Your task to perform on an android device: Open my contact list Image 0: 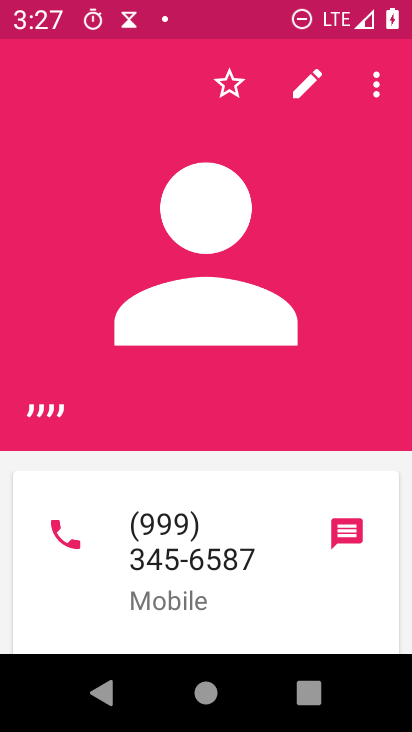
Step 0: press home button
Your task to perform on an android device: Open my contact list Image 1: 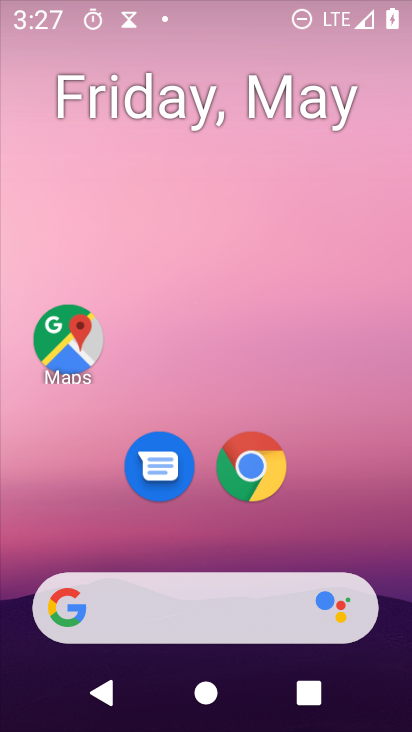
Step 1: drag from (376, 532) to (376, 29)
Your task to perform on an android device: Open my contact list Image 2: 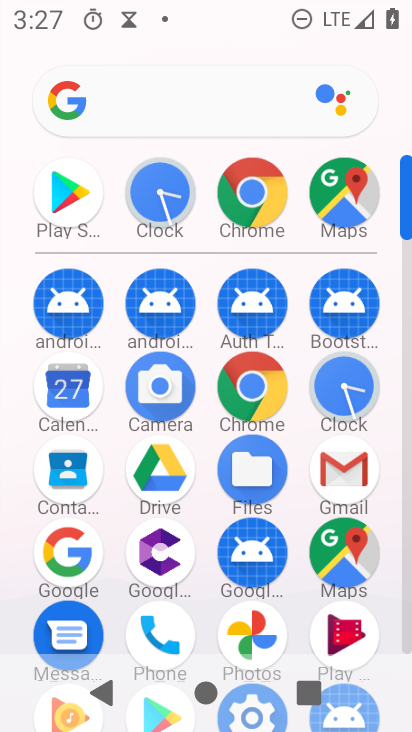
Step 2: drag from (394, 607) to (383, 371)
Your task to perform on an android device: Open my contact list Image 3: 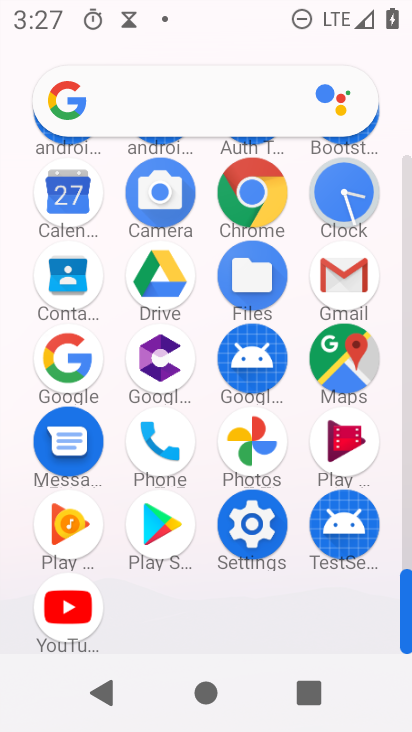
Step 3: click (174, 441)
Your task to perform on an android device: Open my contact list Image 4: 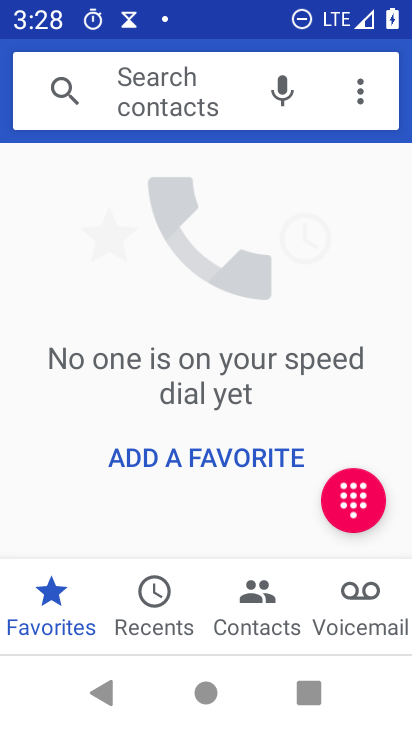
Step 4: click (283, 608)
Your task to perform on an android device: Open my contact list Image 5: 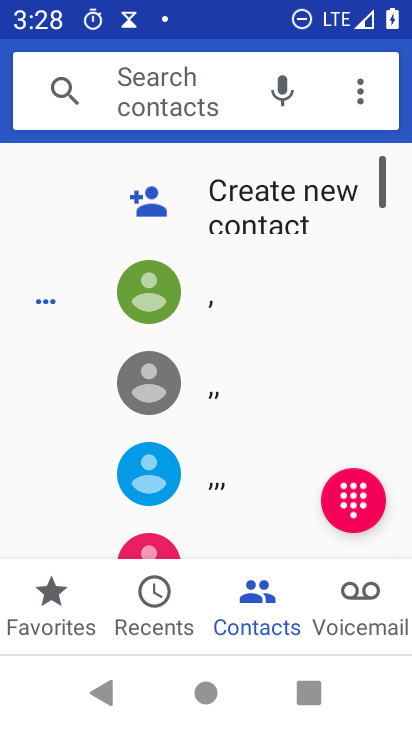
Step 5: task complete